Your task to perform on an android device: Open Chrome and go to settings Image 0: 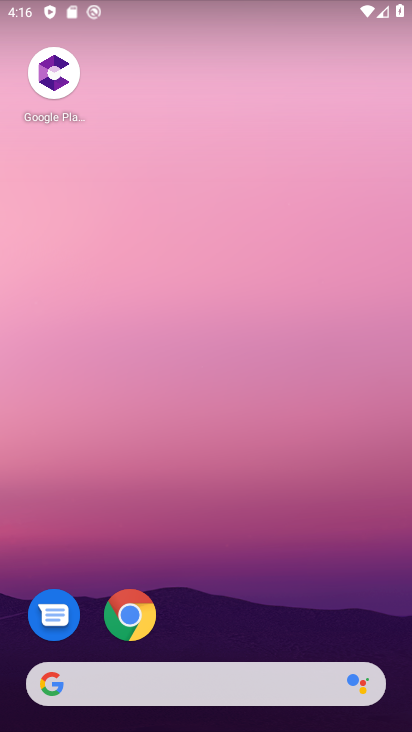
Step 0: click (351, 653)
Your task to perform on an android device: Open Chrome and go to settings Image 1: 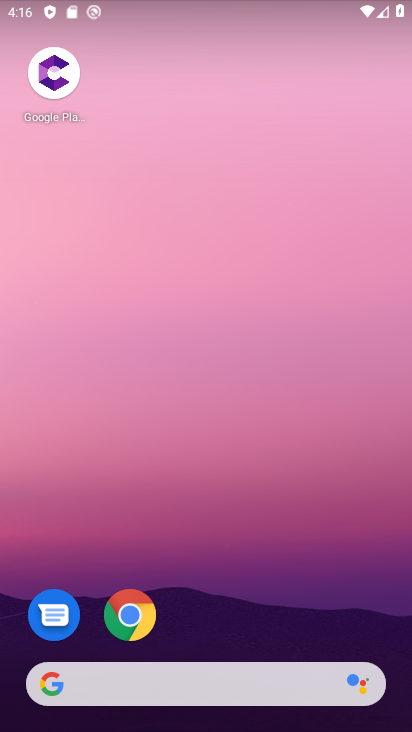
Step 1: drag from (347, 639) to (251, 265)
Your task to perform on an android device: Open Chrome and go to settings Image 2: 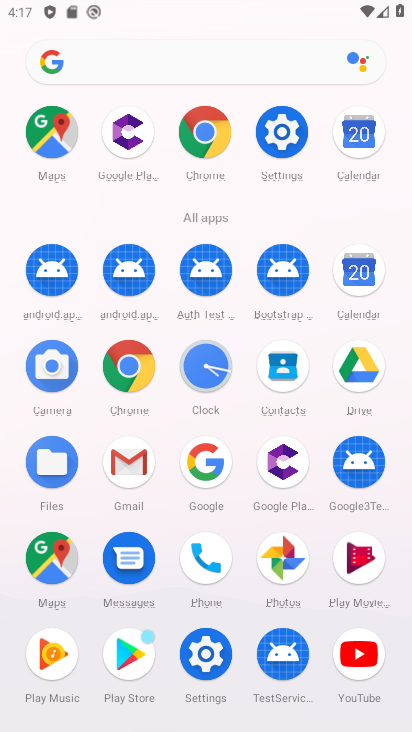
Step 2: click (139, 378)
Your task to perform on an android device: Open Chrome and go to settings Image 3: 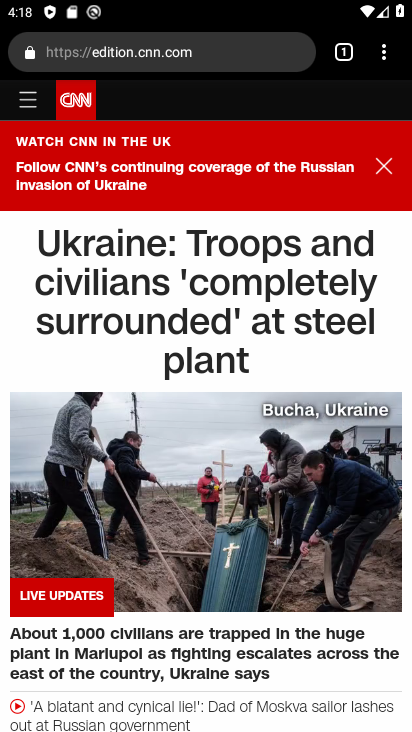
Step 3: press back button
Your task to perform on an android device: Open Chrome and go to settings Image 4: 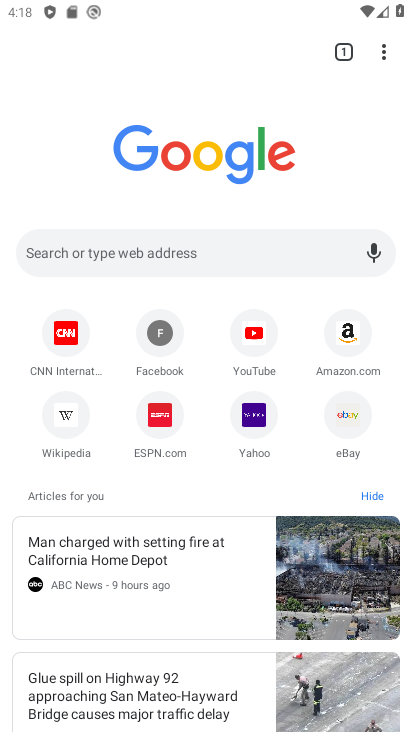
Step 4: click (382, 50)
Your task to perform on an android device: Open Chrome and go to settings Image 5: 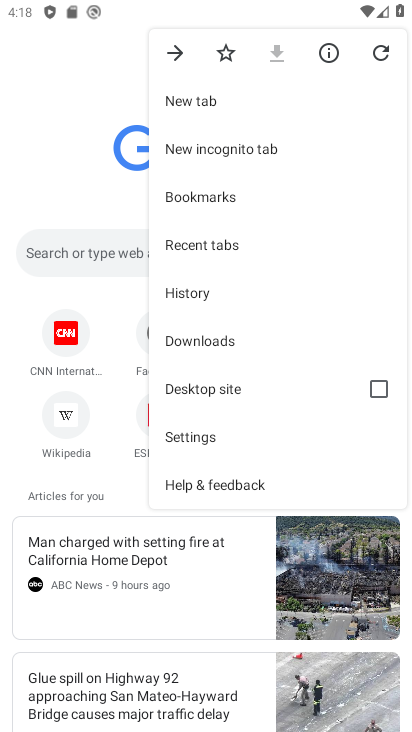
Step 5: click (264, 439)
Your task to perform on an android device: Open Chrome and go to settings Image 6: 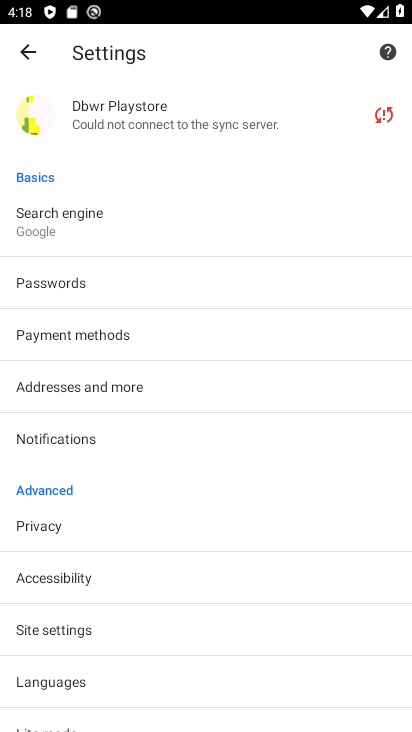
Step 6: task complete